Your task to perform on an android device: clear history in the chrome app Image 0: 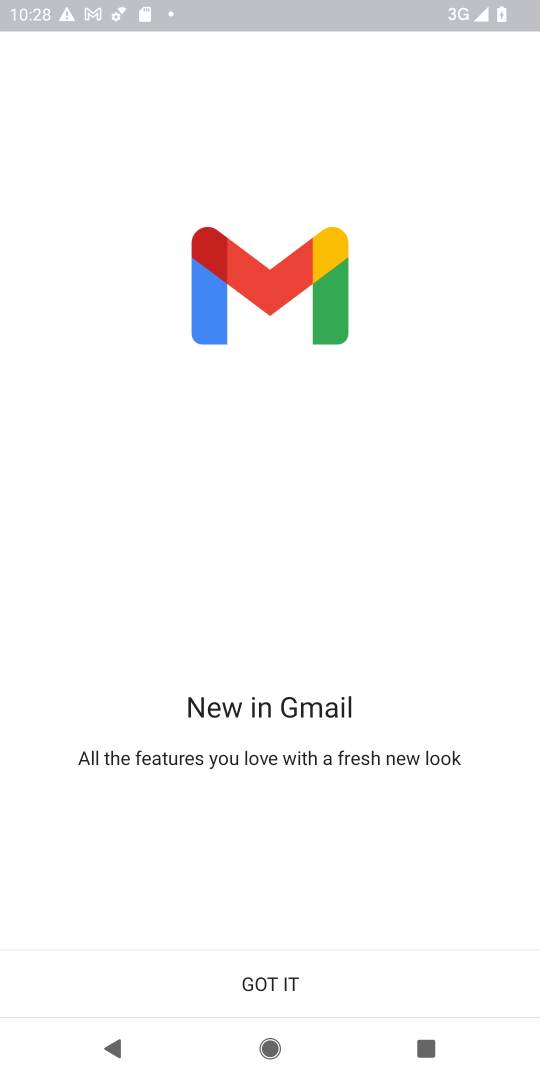
Step 0: press home button
Your task to perform on an android device: clear history in the chrome app Image 1: 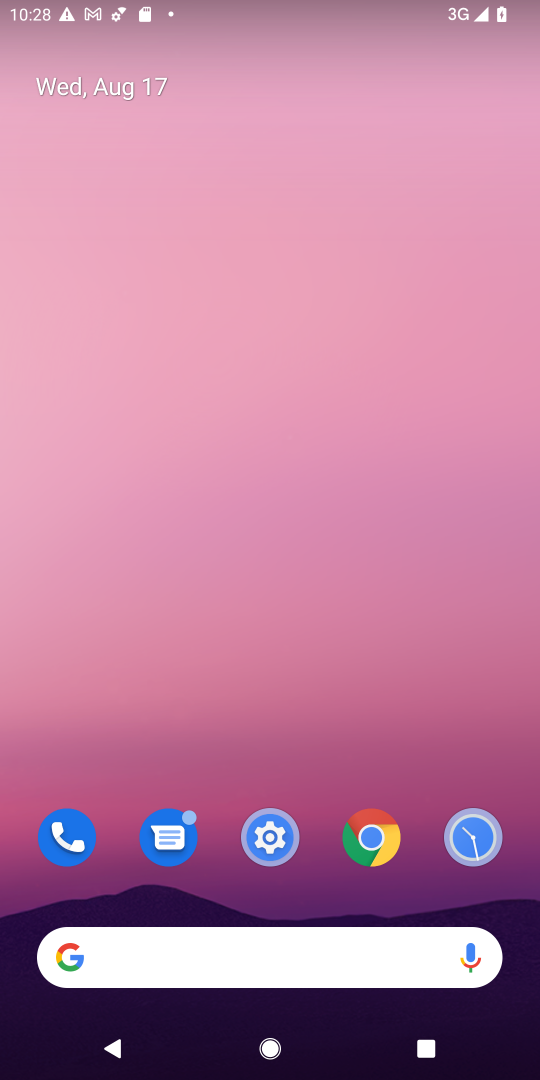
Step 1: click (372, 843)
Your task to perform on an android device: clear history in the chrome app Image 2: 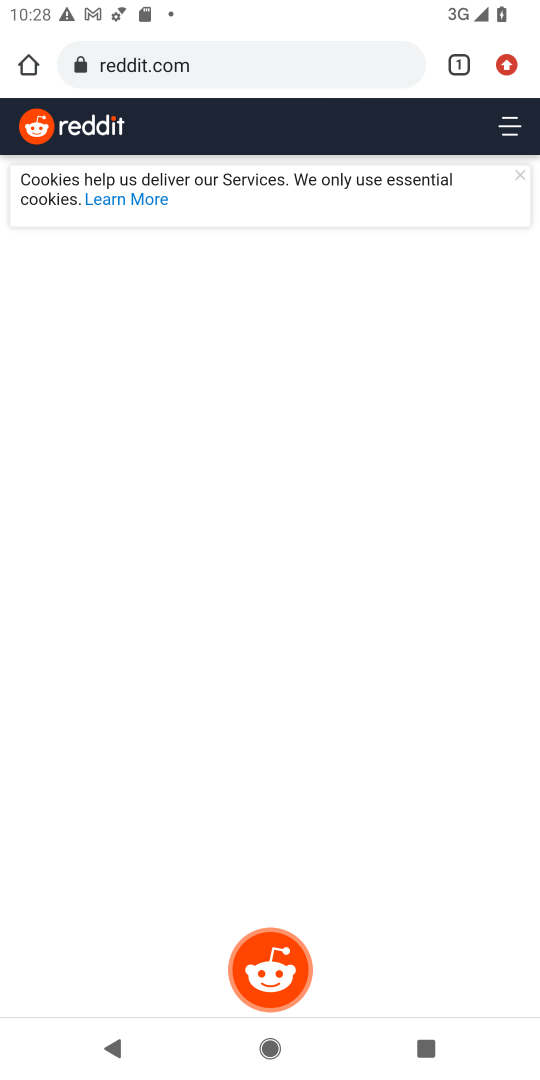
Step 2: drag from (506, 69) to (356, 324)
Your task to perform on an android device: clear history in the chrome app Image 3: 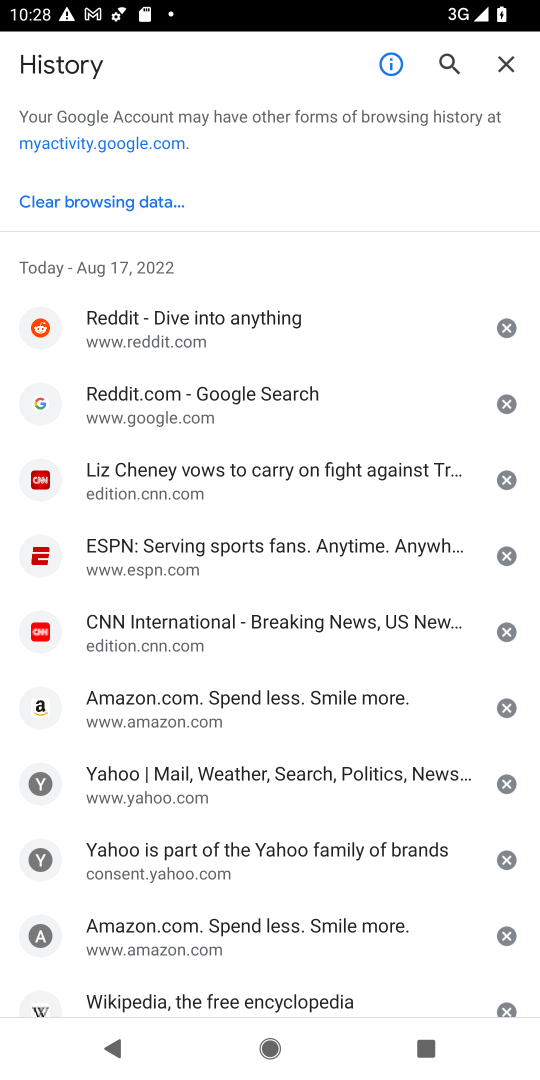
Step 3: click (155, 205)
Your task to perform on an android device: clear history in the chrome app Image 4: 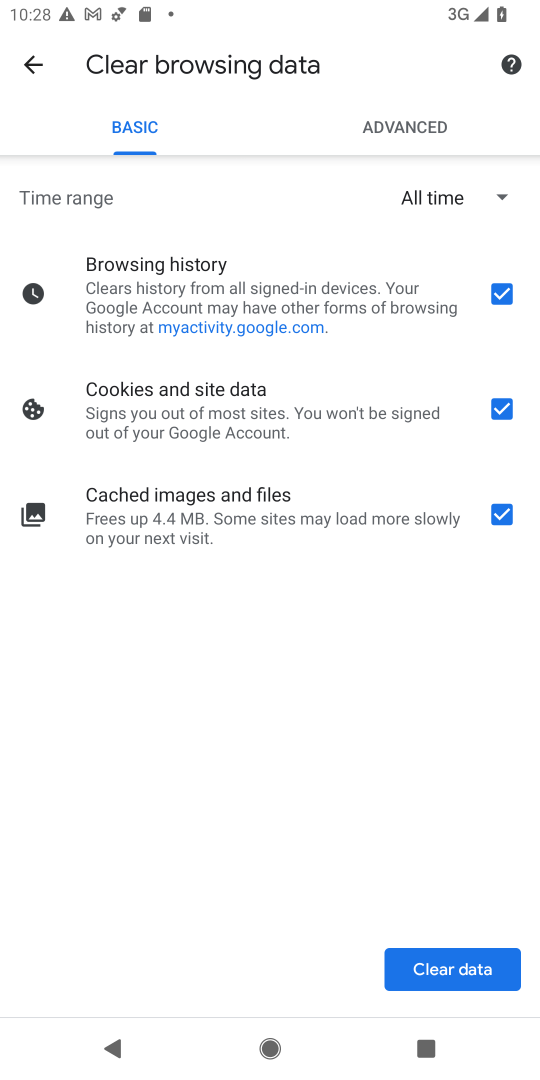
Step 4: click (485, 977)
Your task to perform on an android device: clear history in the chrome app Image 5: 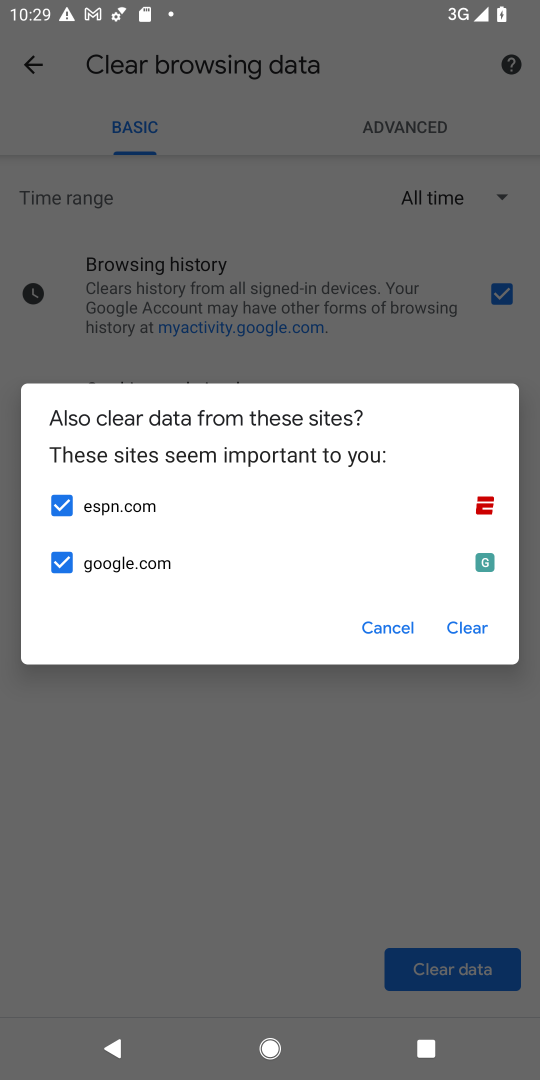
Step 5: click (461, 636)
Your task to perform on an android device: clear history in the chrome app Image 6: 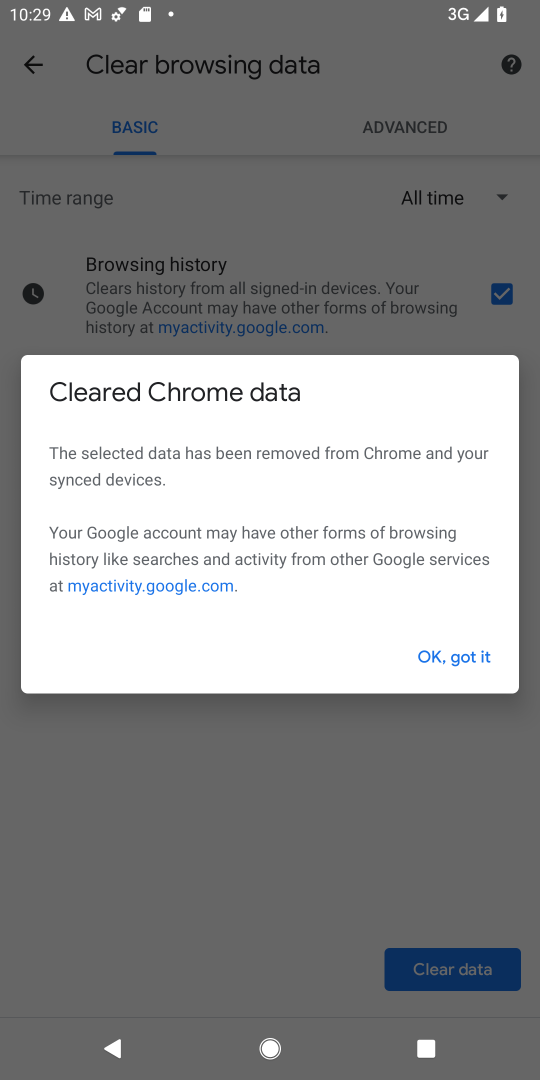
Step 6: click (459, 655)
Your task to perform on an android device: clear history in the chrome app Image 7: 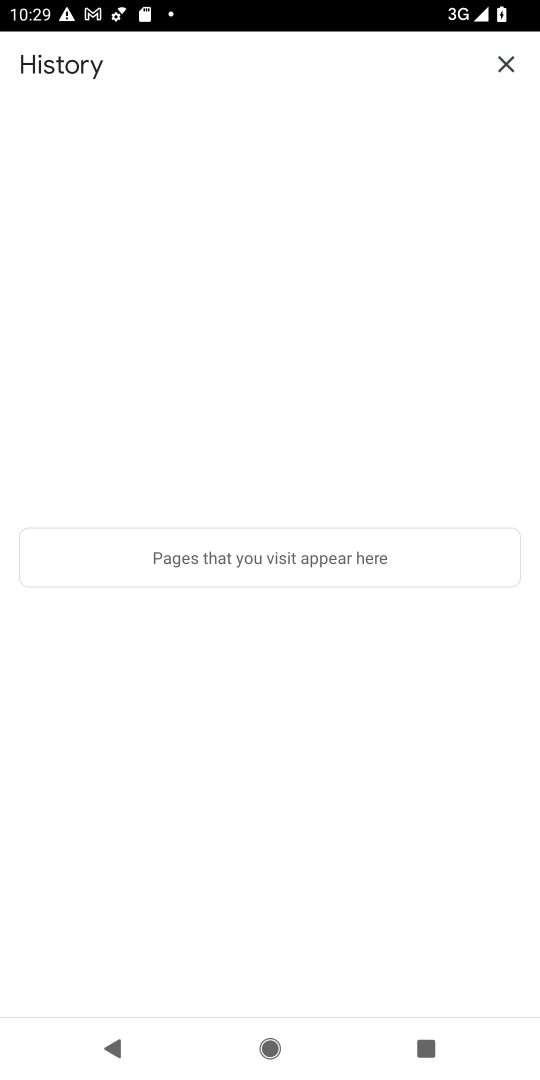
Step 7: task complete